Your task to perform on an android device: turn off wifi Image 0: 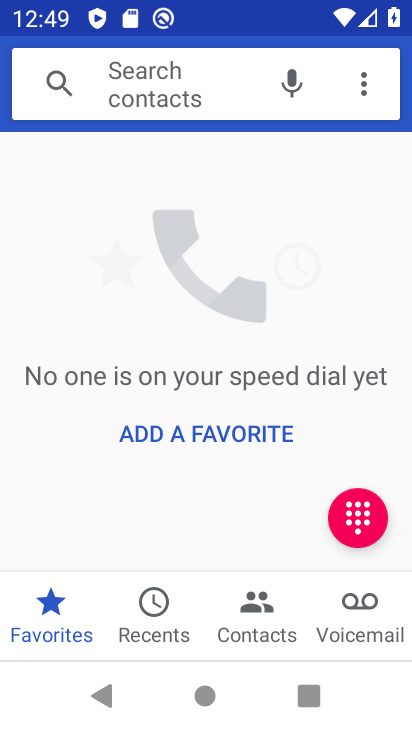
Step 0: press home button
Your task to perform on an android device: turn off wifi Image 1: 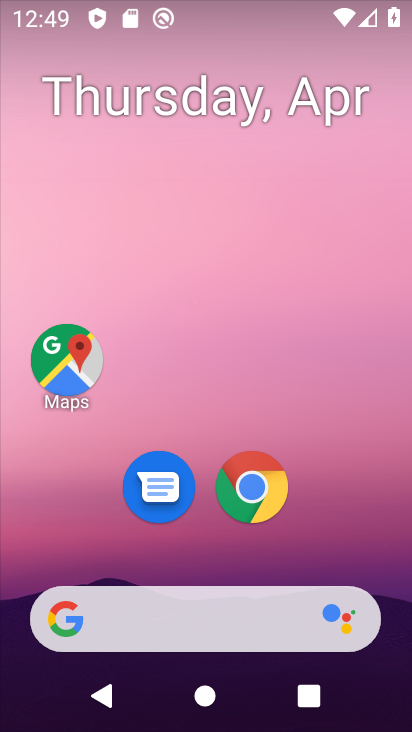
Step 1: drag from (339, 345) to (330, 101)
Your task to perform on an android device: turn off wifi Image 2: 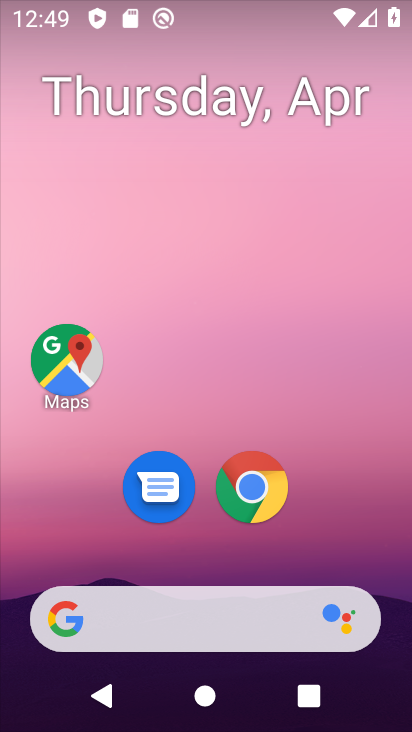
Step 2: drag from (370, 541) to (362, 156)
Your task to perform on an android device: turn off wifi Image 3: 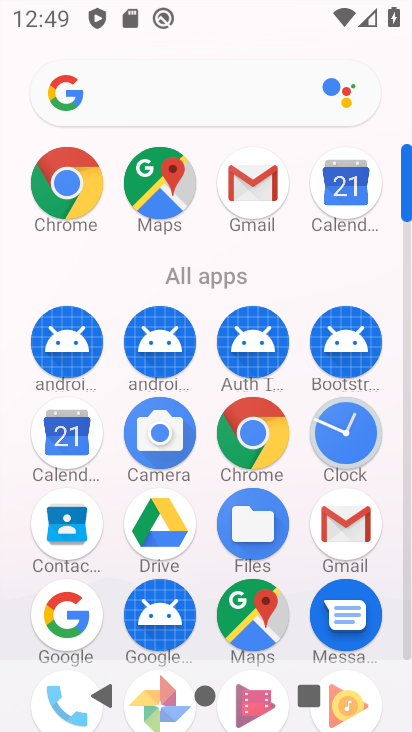
Step 3: drag from (200, 568) to (235, 249)
Your task to perform on an android device: turn off wifi Image 4: 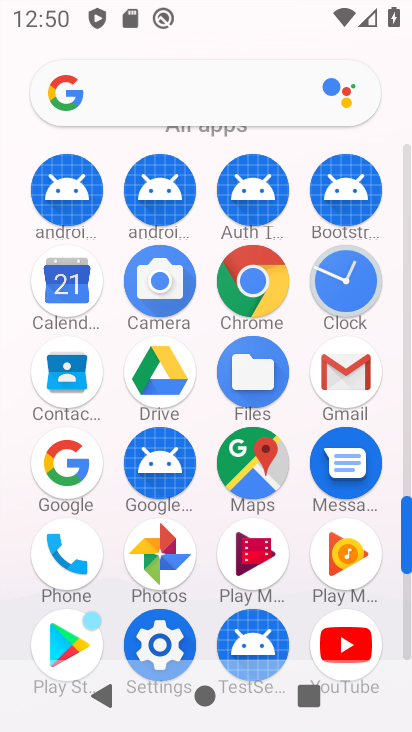
Step 4: click (151, 650)
Your task to perform on an android device: turn off wifi Image 5: 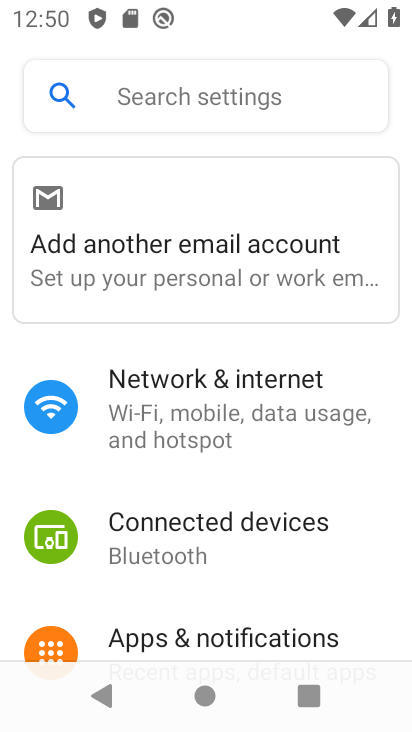
Step 5: click (259, 416)
Your task to perform on an android device: turn off wifi Image 6: 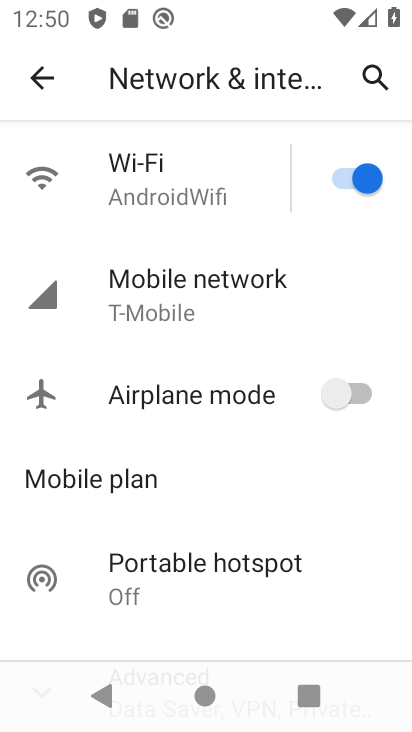
Step 6: click (349, 179)
Your task to perform on an android device: turn off wifi Image 7: 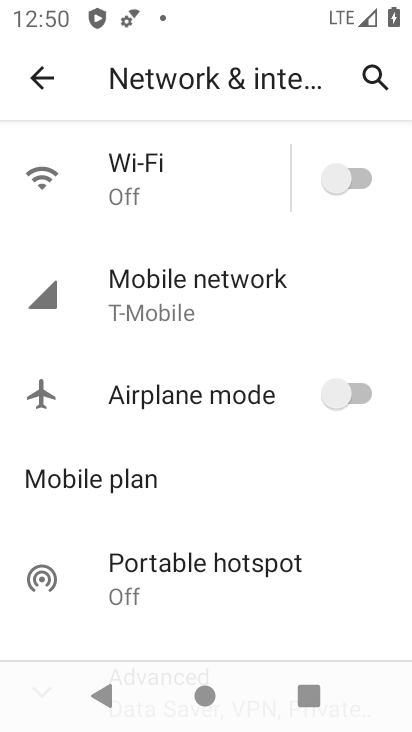
Step 7: task complete